Your task to perform on an android device: What's the weather going to be tomorrow? Image 0: 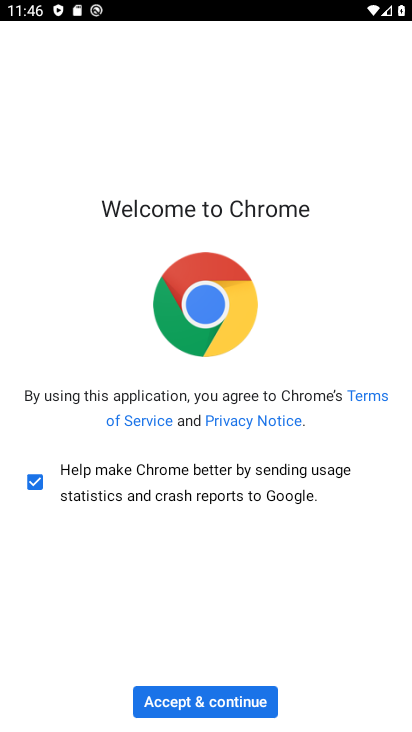
Step 0: press home button
Your task to perform on an android device: What's the weather going to be tomorrow? Image 1: 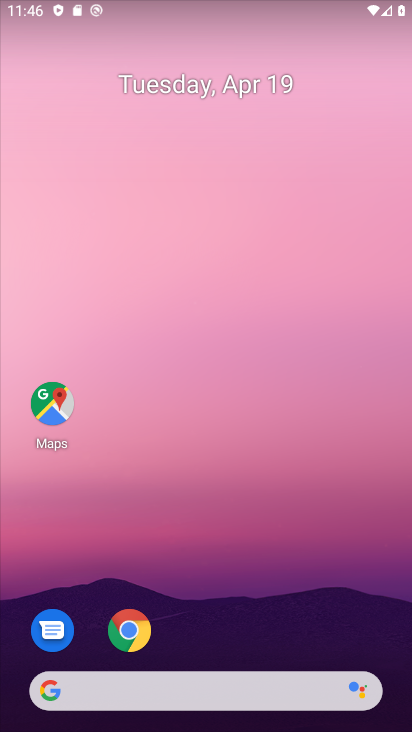
Step 1: drag from (0, 131) to (405, 293)
Your task to perform on an android device: What's the weather going to be tomorrow? Image 2: 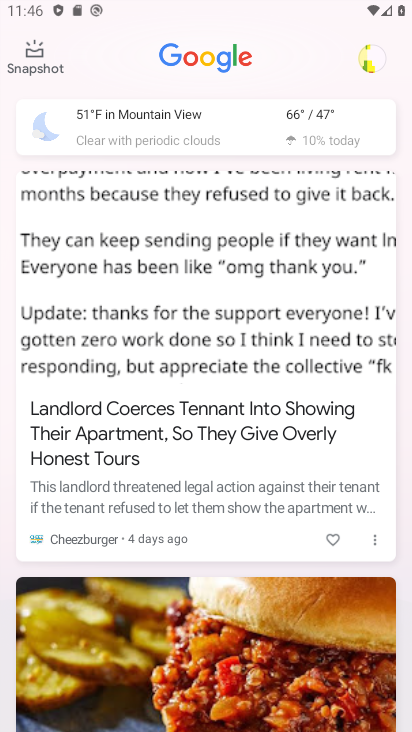
Step 2: click (322, 118)
Your task to perform on an android device: What's the weather going to be tomorrow? Image 3: 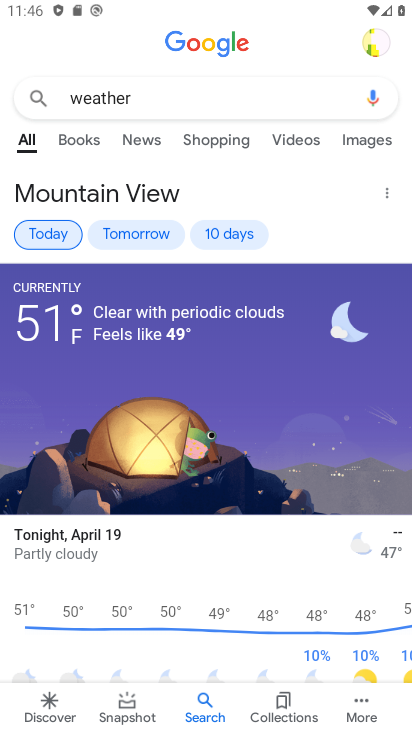
Step 3: click (138, 236)
Your task to perform on an android device: What's the weather going to be tomorrow? Image 4: 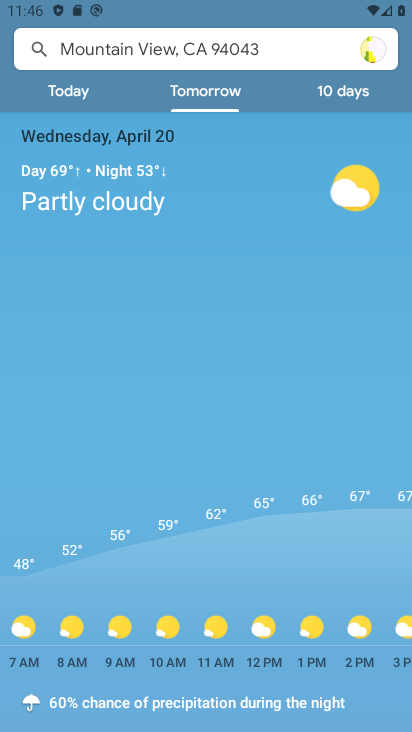
Step 4: task complete